Your task to perform on an android device: uninstall "Google Duo" Image 0: 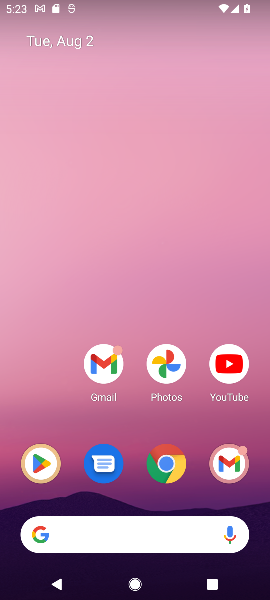
Step 0: press home button
Your task to perform on an android device: uninstall "Google Duo" Image 1: 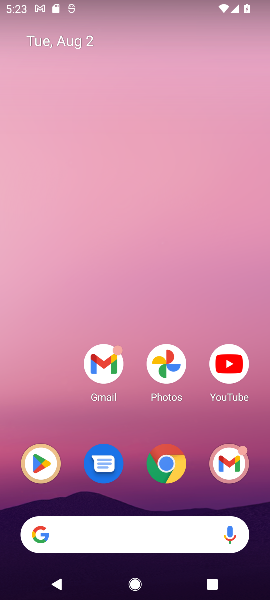
Step 1: click (37, 461)
Your task to perform on an android device: uninstall "Google Duo" Image 2: 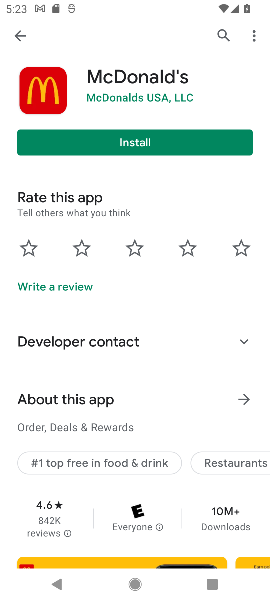
Step 2: click (216, 33)
Your task to perform on an android device: uninstall "Google Duo" Image 3: 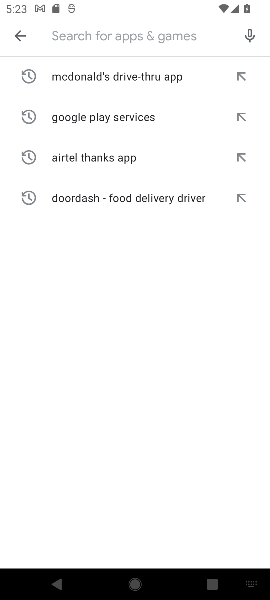
Step 3: type "Google Duo"
Your task to perform on an android device: uninstall "Google Duo" Image 4: 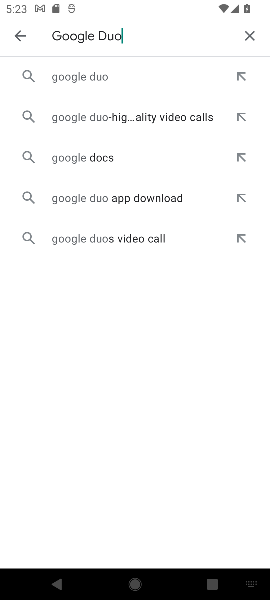
Step 4: click (77, 76)
Your task to perform on an android device: uninstall "Google Duo" Image 5: 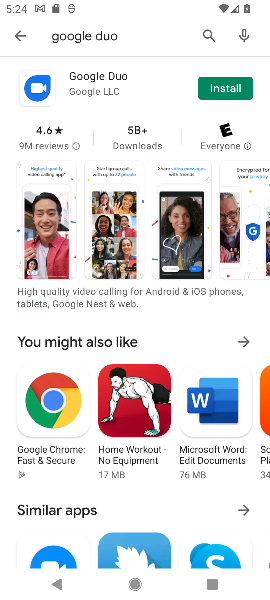
Step 5: task complete